Your task to perform on an android device: turn on the 24-hour format for clock Image 0: 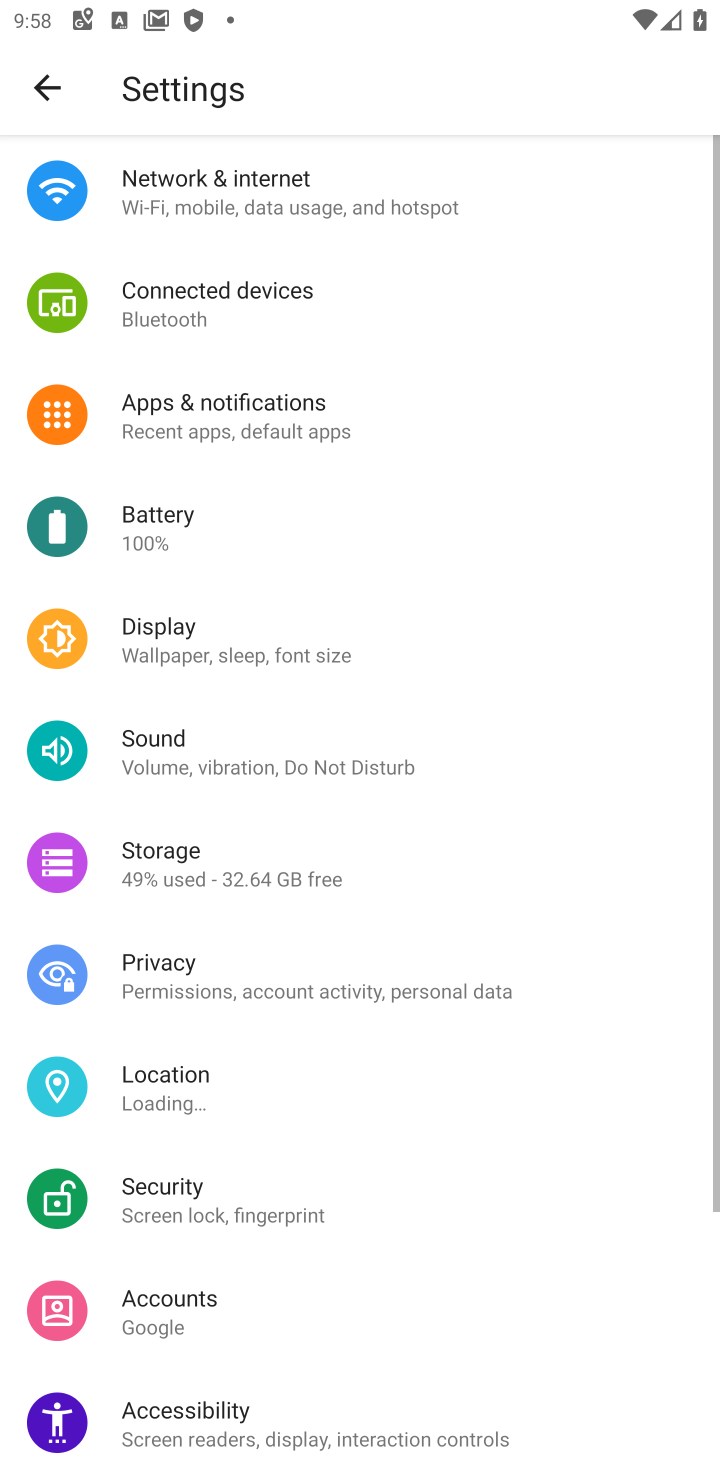
Step 0: press home button
Your task to perform on an android device: turn on the 24-hour format for clock Image 1: 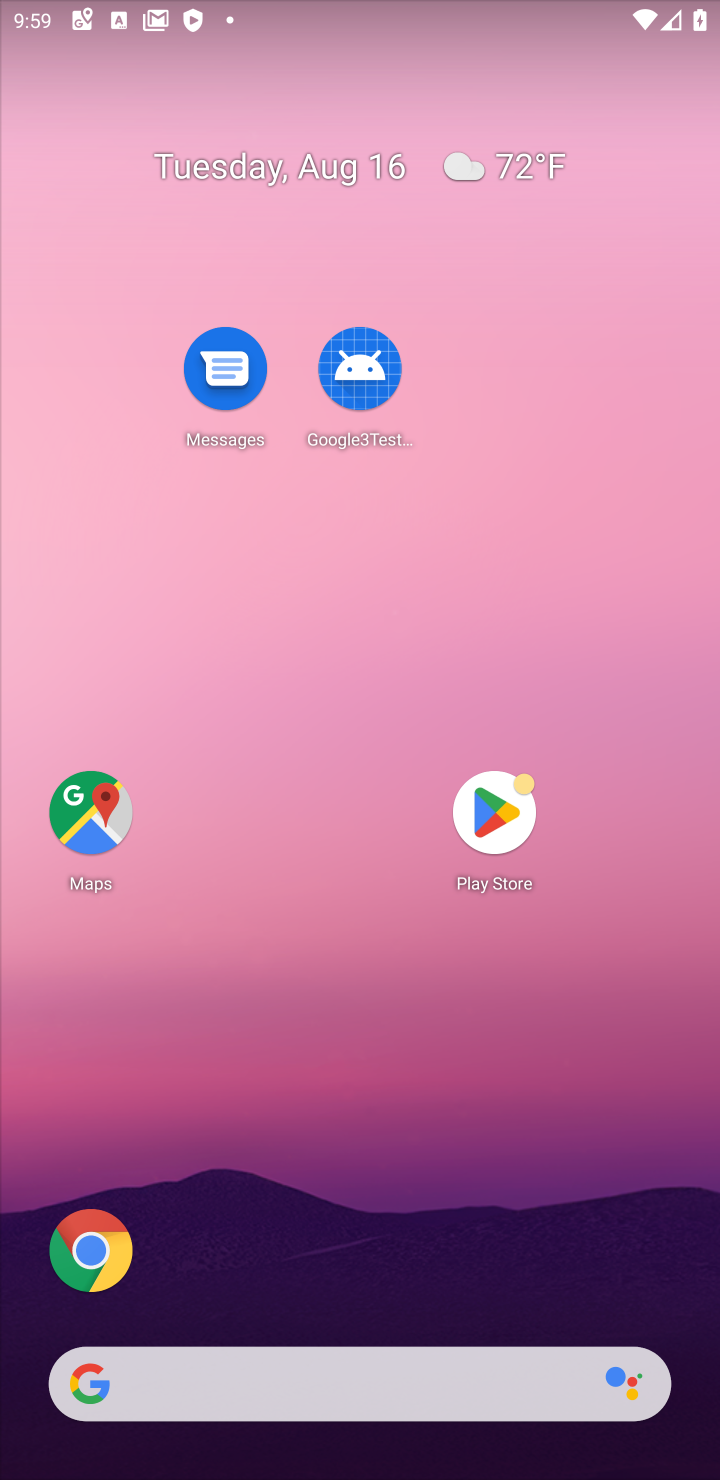
Step 1: drag from (389, 756) to (394, 53)
Your task to perform on an android device: turn on the 24-hour format for clock Image 2: 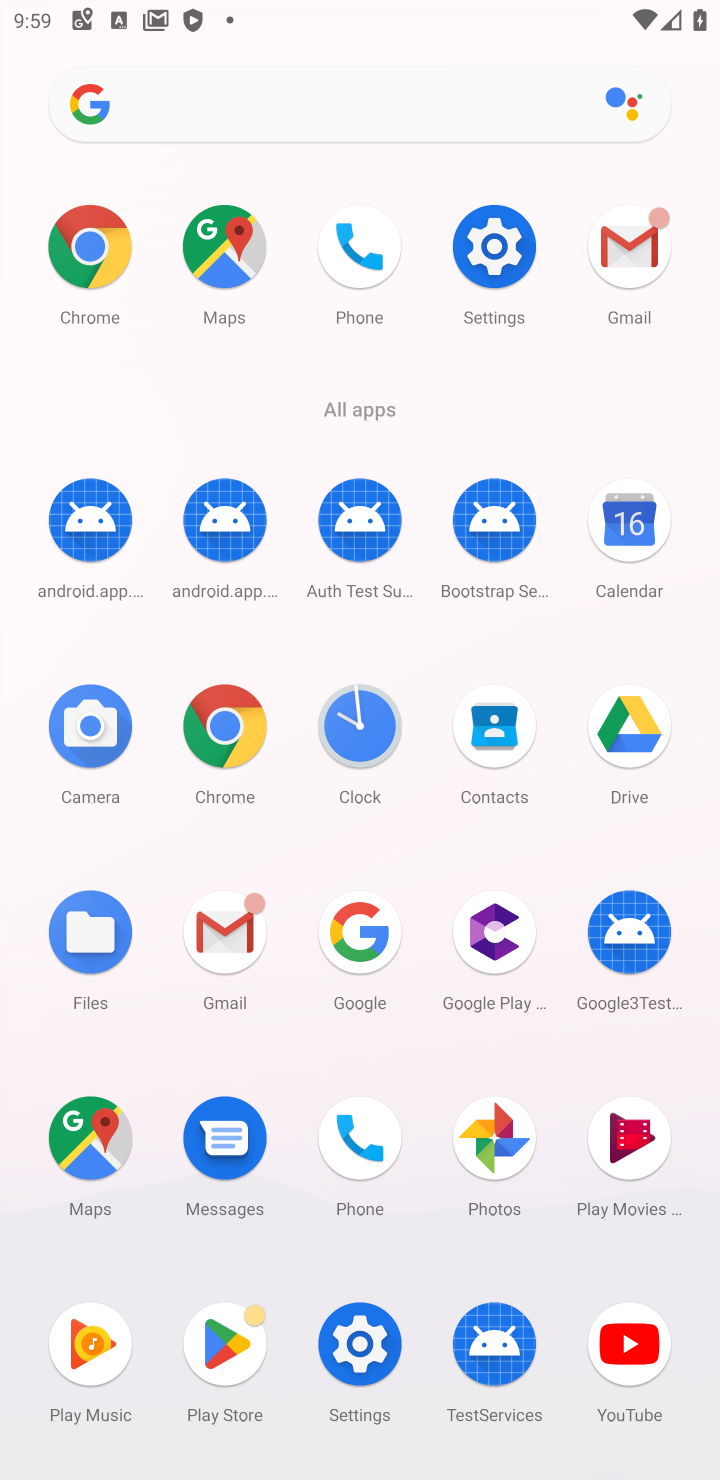
Step 2: click (348, 692)
Your task to perform on an android device: turn on the 24-hour format for clock Image 3: 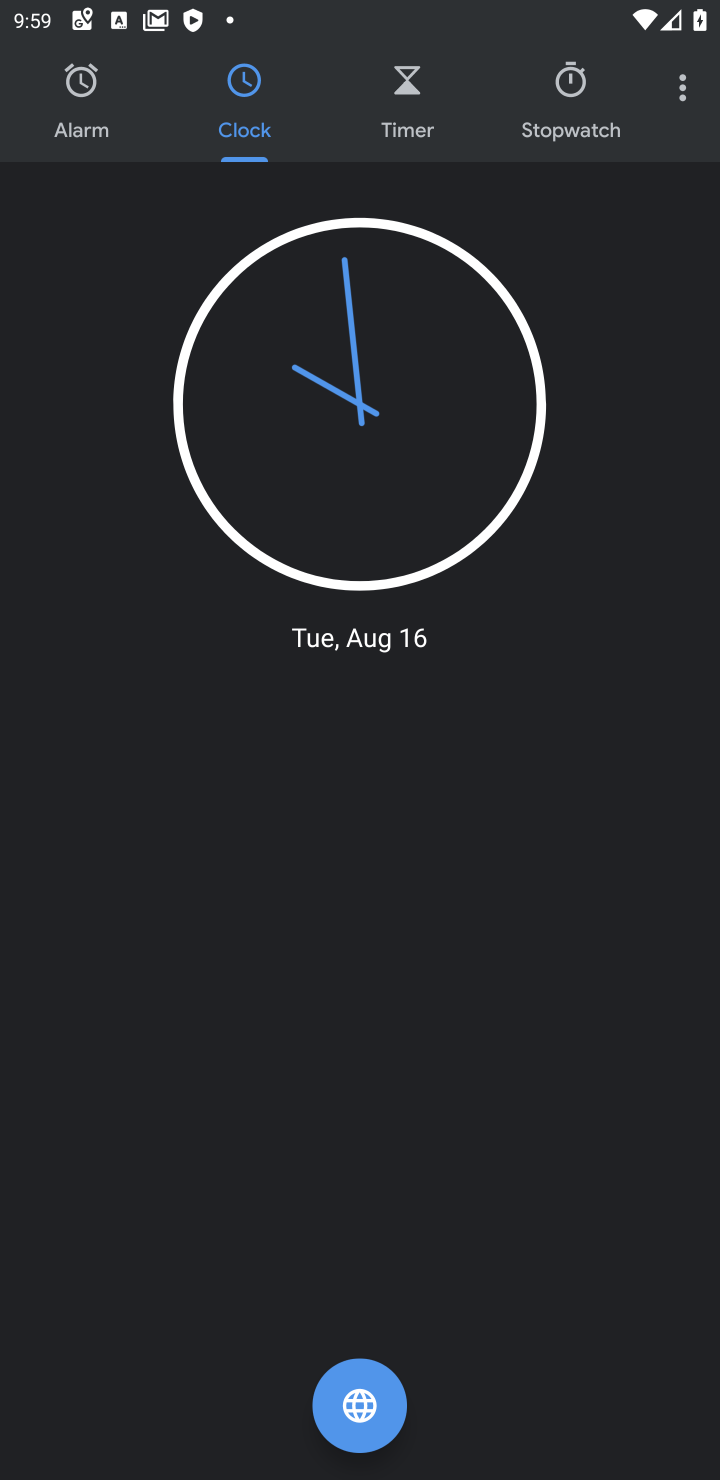
Step 3: click (688, 85)
Your task to perform on an android device: turn on the 24-hour format for clock Image 4: 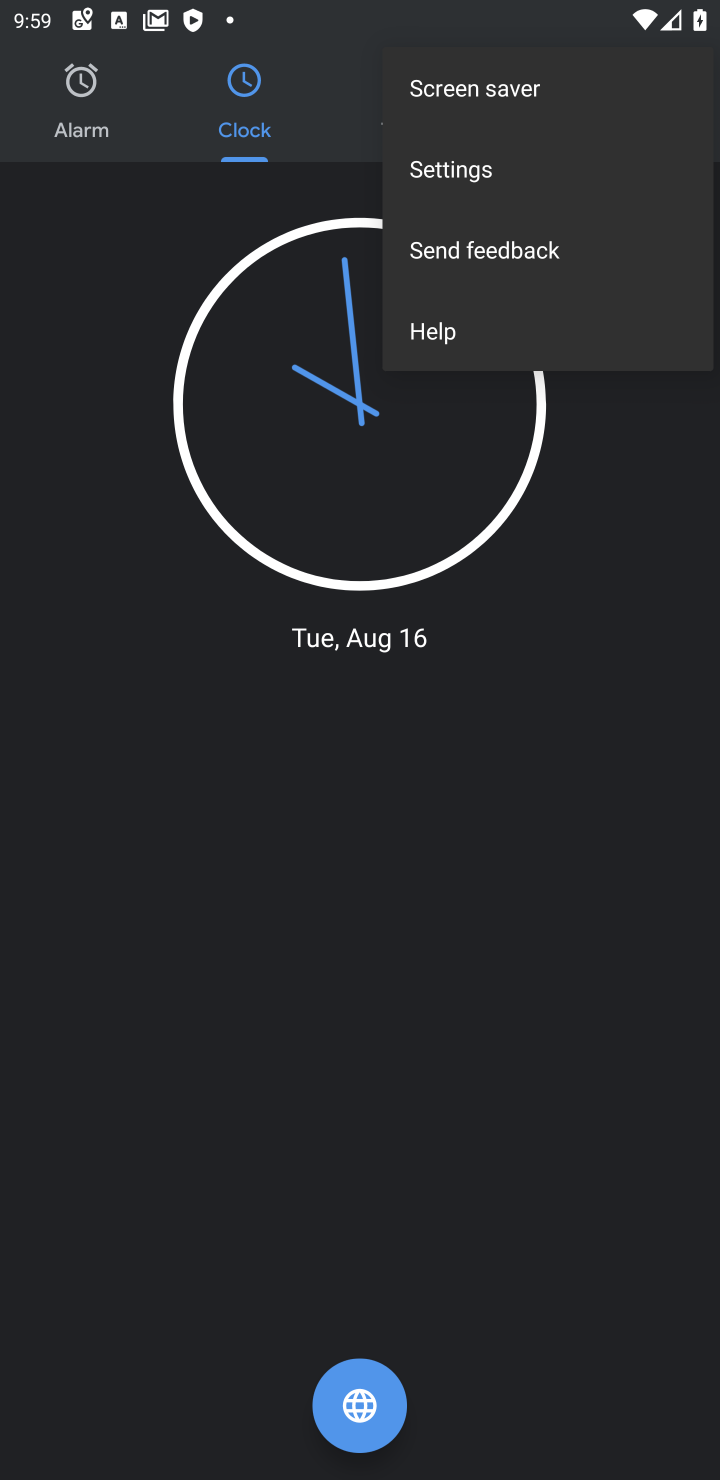
Step 4: click (525, 186)
Your task to perform on an android device: turn on the 24-hour format for clock Image 5: 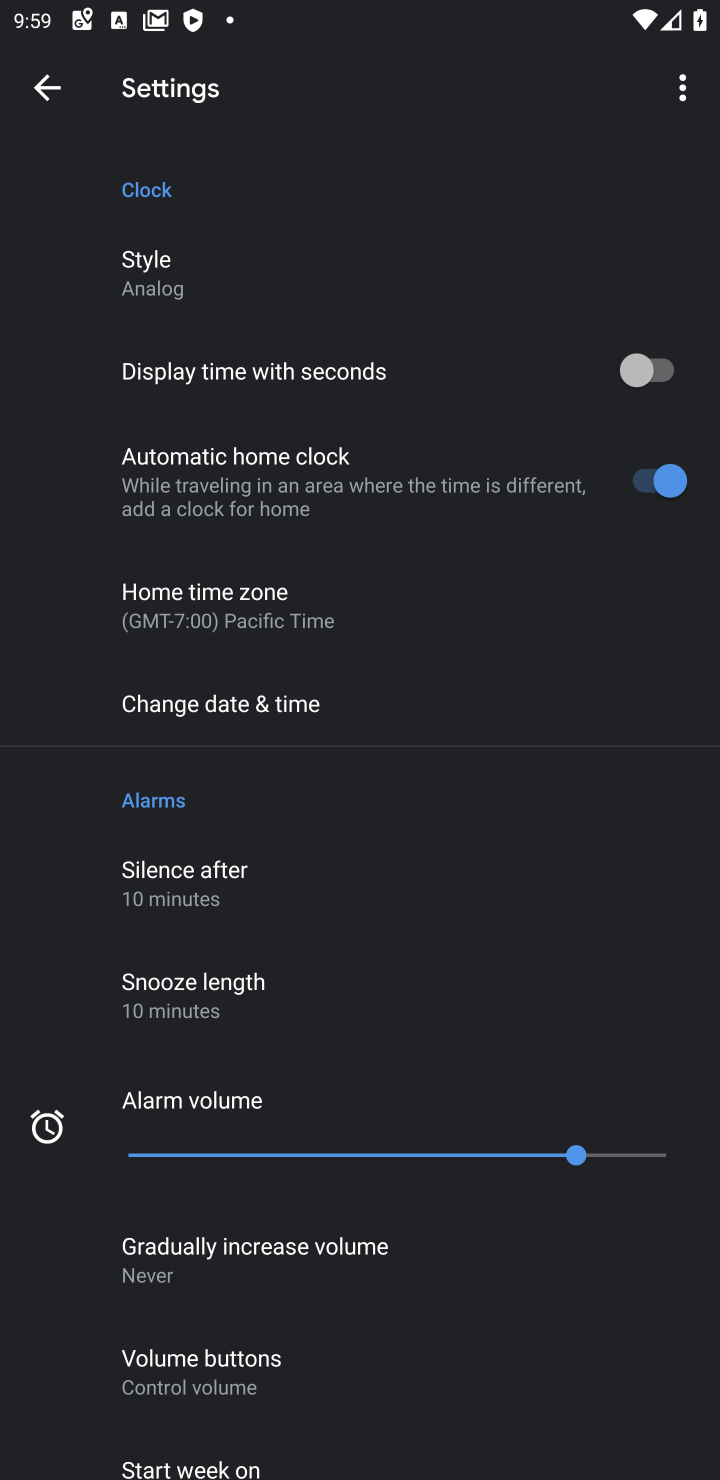
Step 5: click (347, 713)
Your task to perform on an android device: turn on the 24-hour format for clock Image 6: 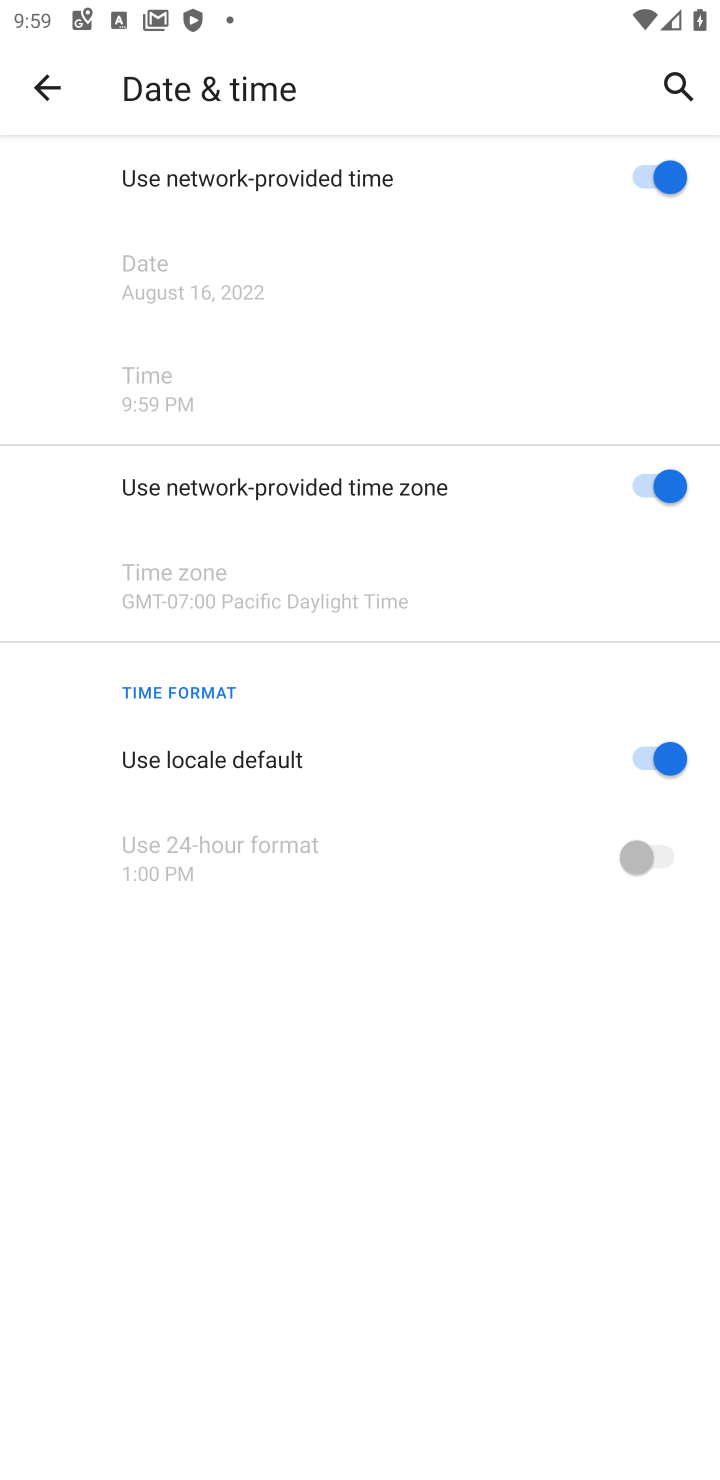
Step 6: click (681, 764)
Your task to perform on an android device: turn on the 24-hour format for clock Image 7: 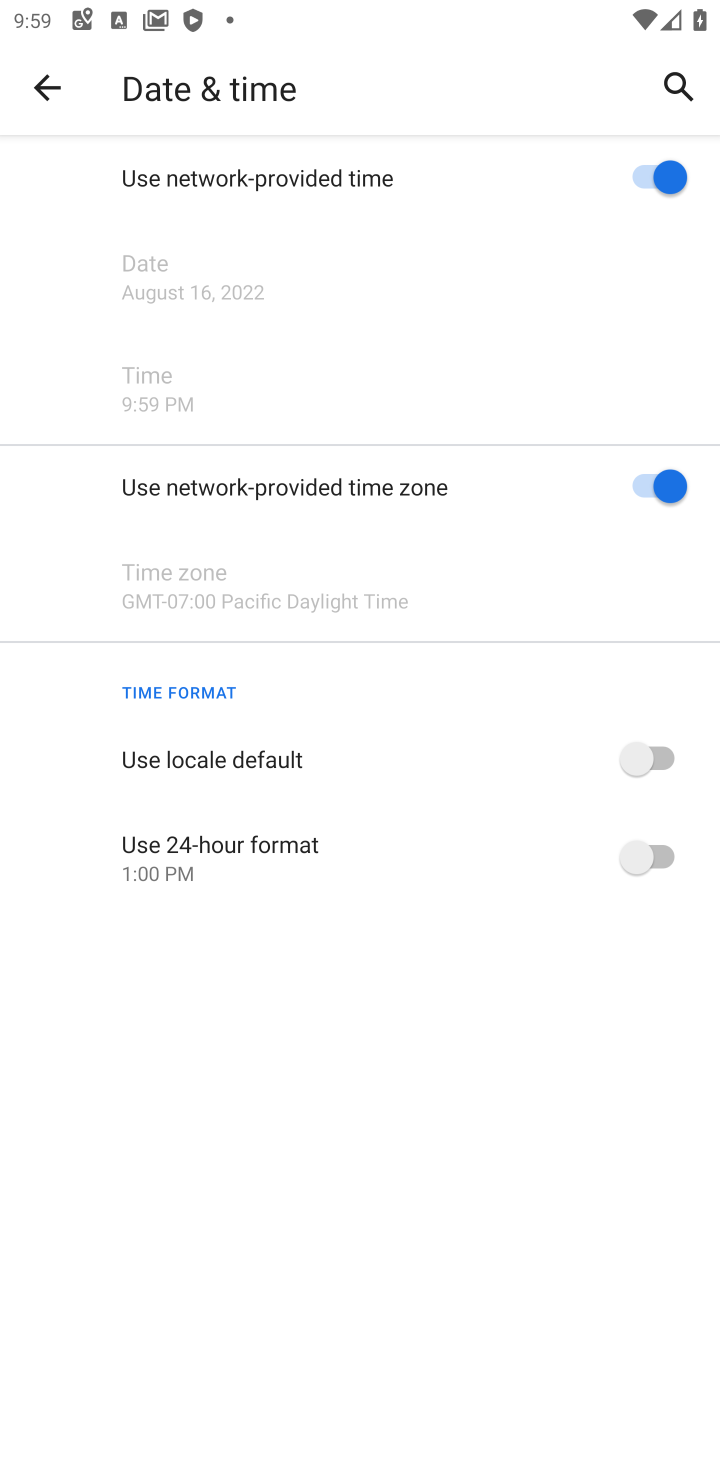
Step 7: click (652, 854)
Your task to perform on an android device: turn on the 24-hour format for clock Image 8: 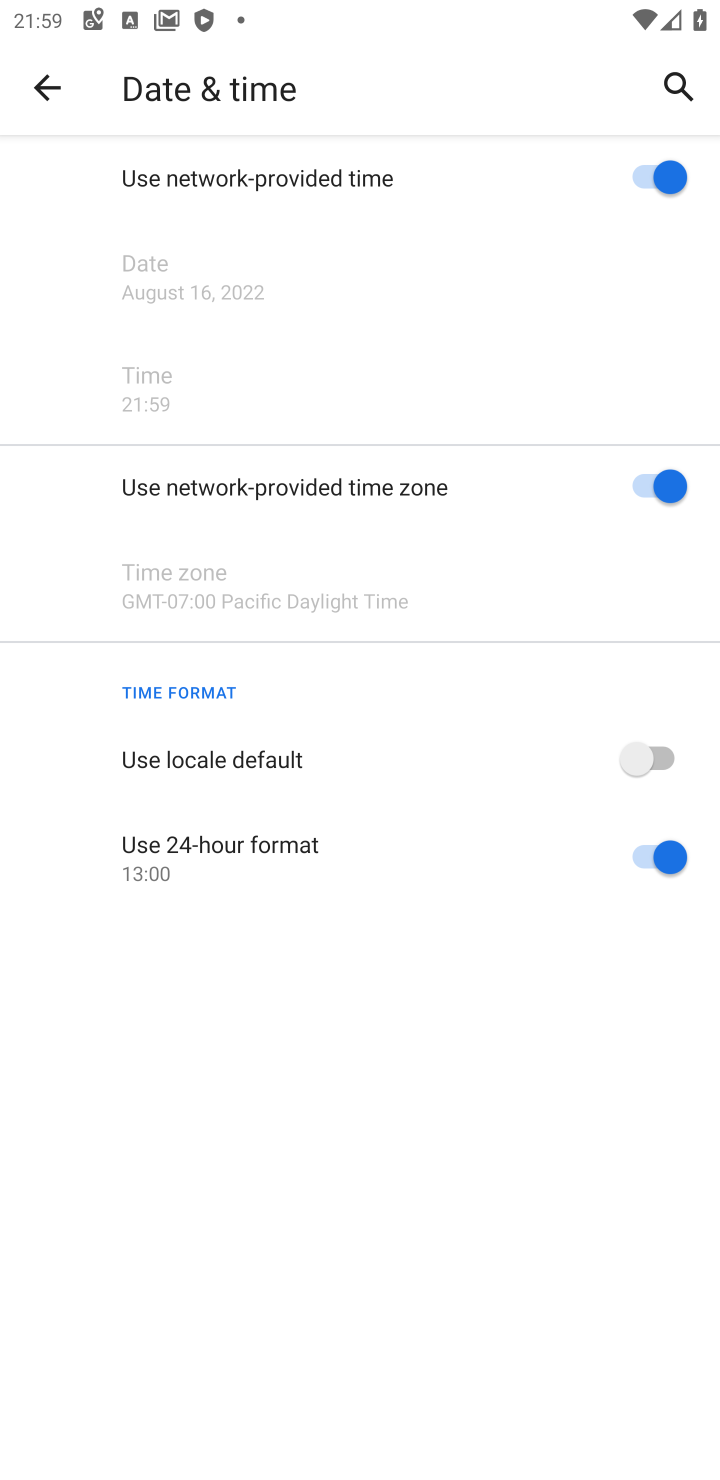
Step 8: task complete